Your task to perform on an android device: Is it going to rain tomorrow? Image 0: 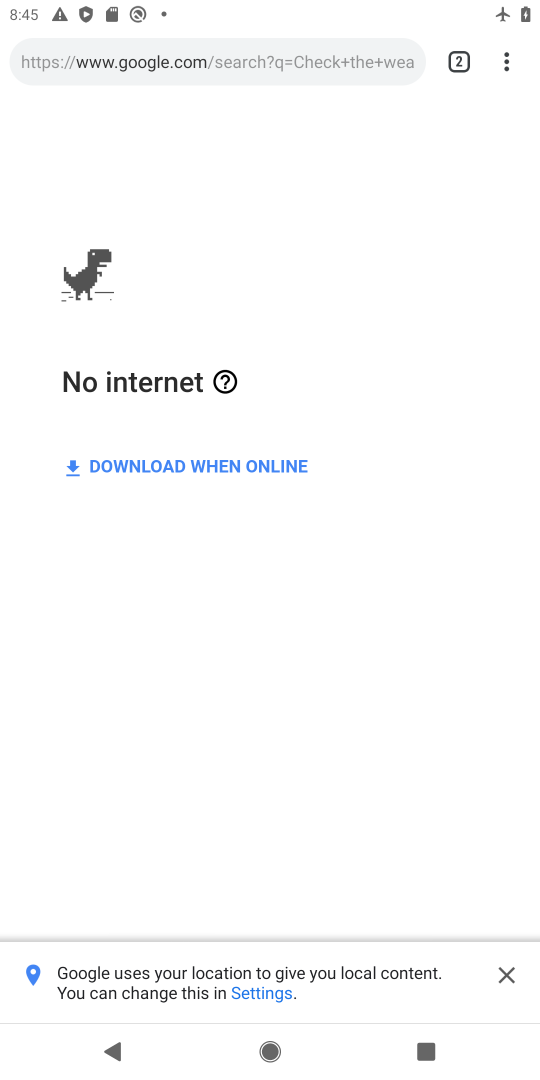
Step 0: press home button
Your task to perform on an android device: Is it going to rain tomorrow? Image 1: 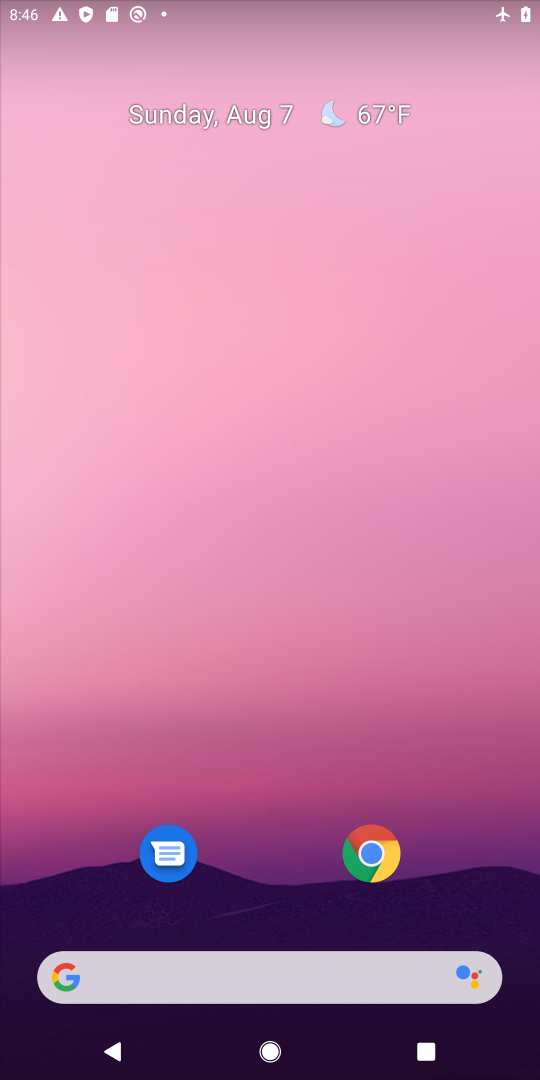
Step 1: drag from (248, 871) to (309, 305)
Your task to perform on an android device: Is it going to rain tomorrow? Image 2: 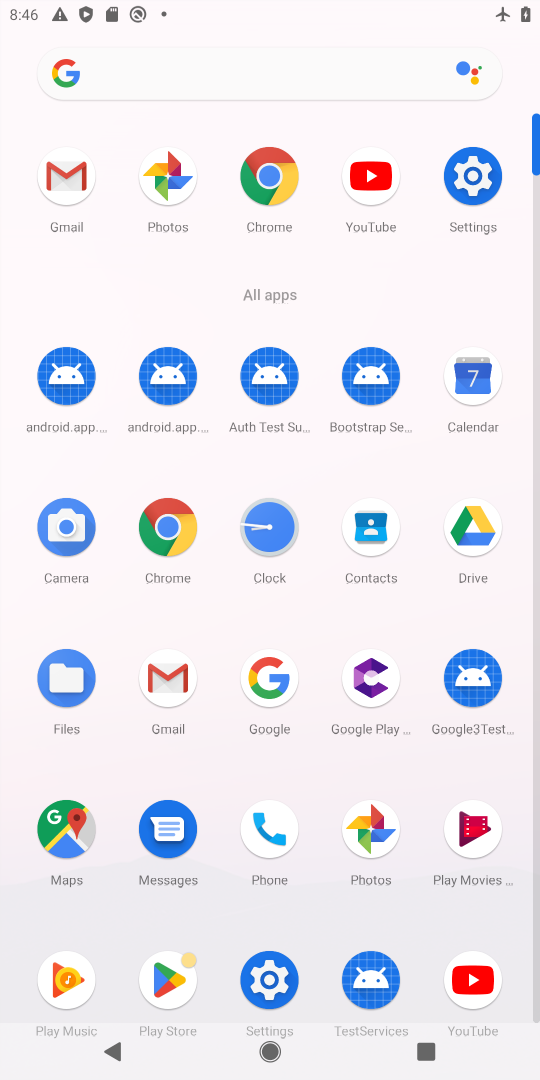
Step 2: click (159, 680)
Your task to perform on an android device: Is it going to rain tomorrow? Image 3: 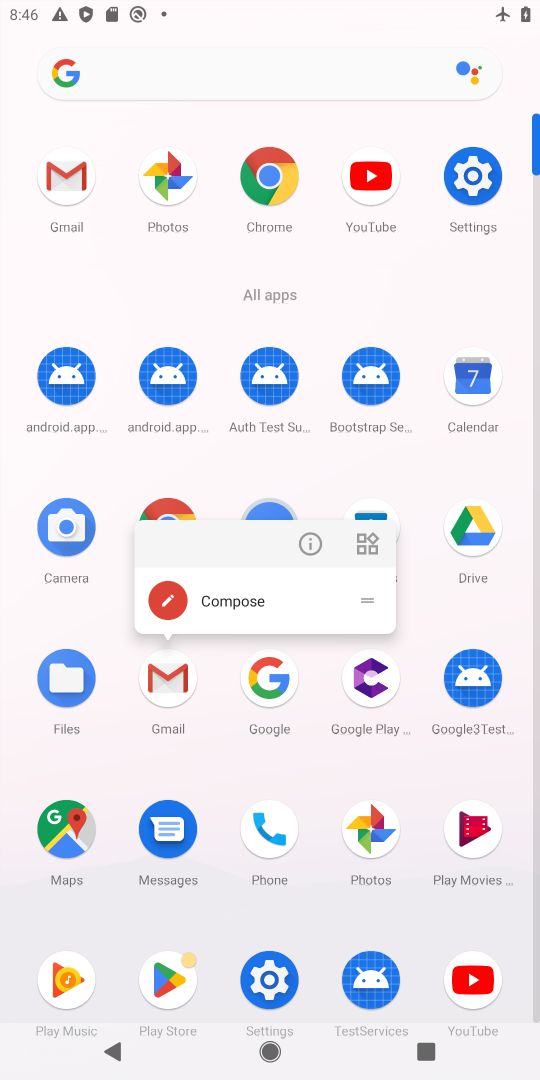
Step 3: click (159, 680)
Your task to perform on an android device: Is it going to rain tomorrow? Image 4: 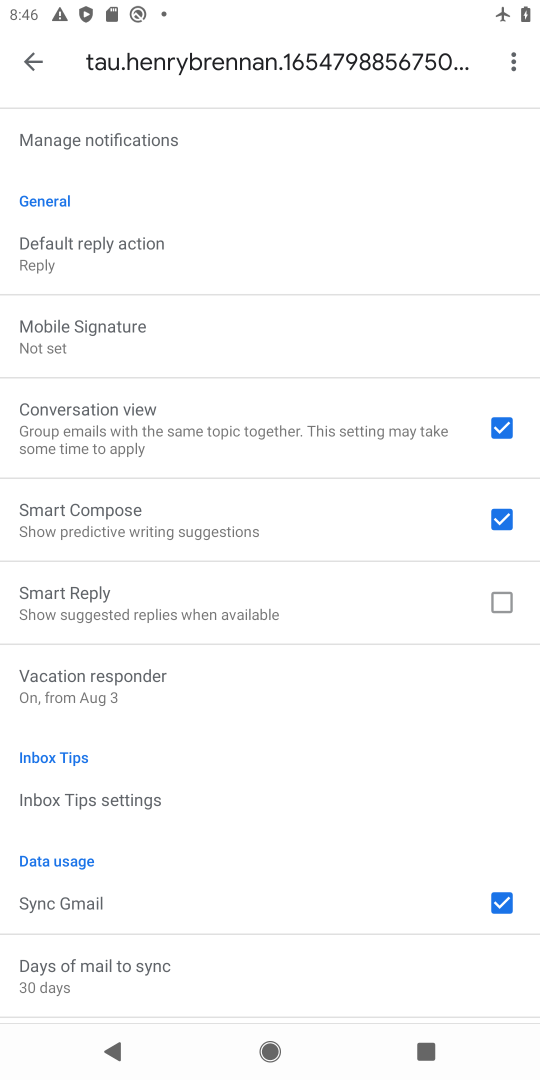
Step 4: click (24, 58)
Your task to perform on an android device: Is it going to rain tomorrow? Image 5: 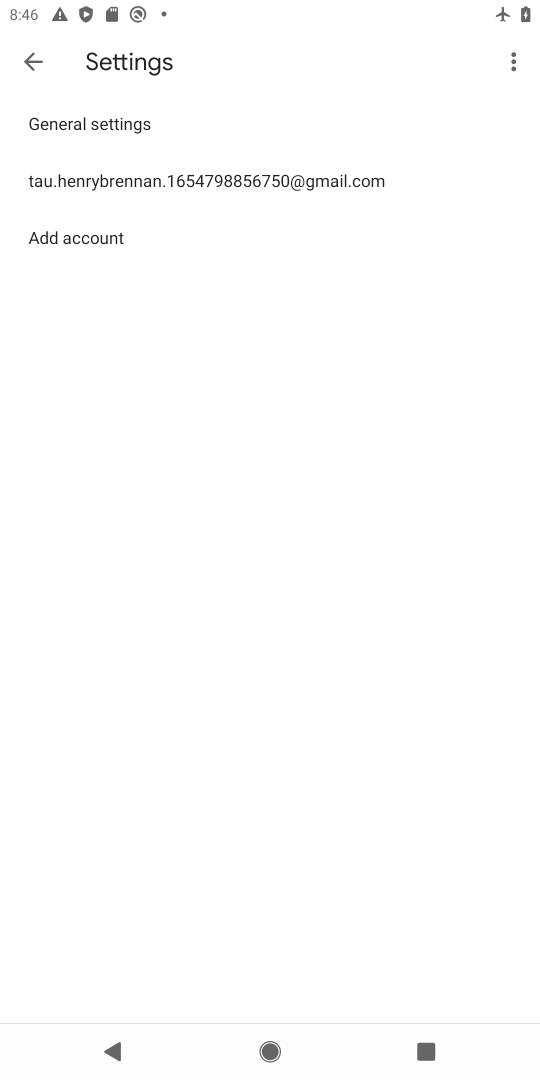
Step 5: click (35, 56)
Your task to perform on an android device: Is it going to rain tomorrow? Image 6: 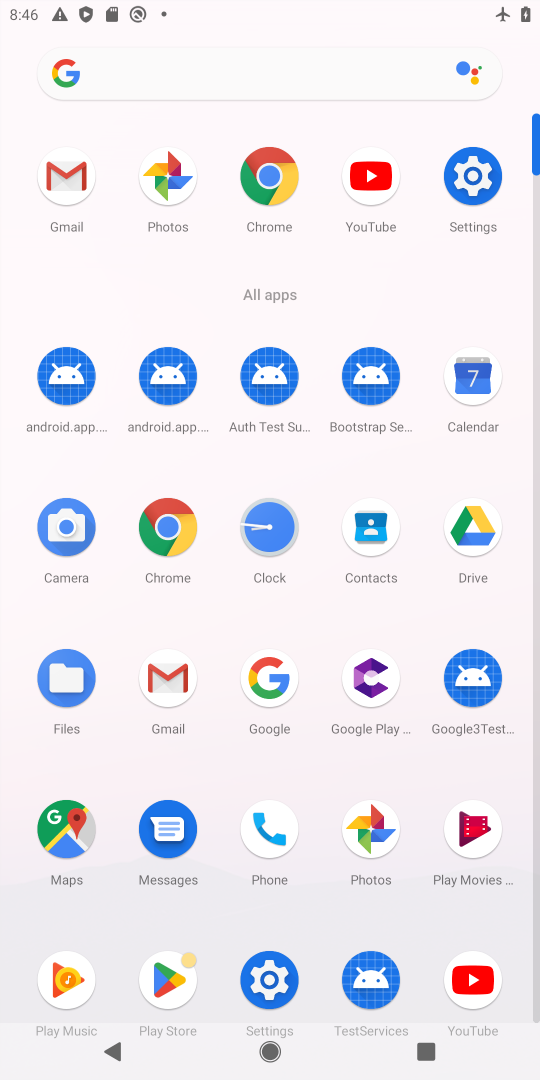
Step 6: click (176, 552)
Your task to perform on an android device: Is it going to rain tomorrow? Image 7: 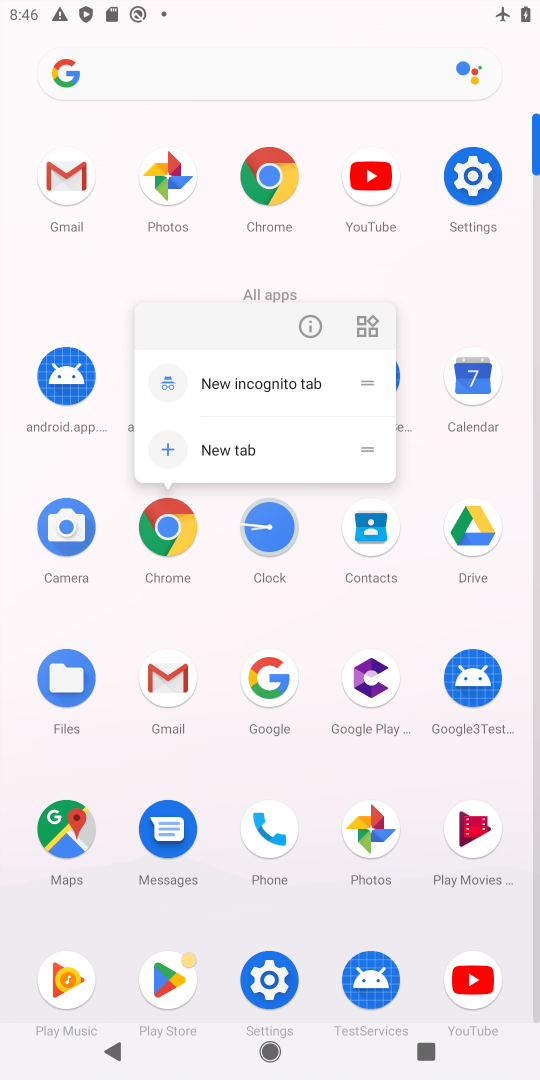
Step 7: click (188, 527)
Your task to perform on an android device: Is it going to rain tomorrow? Image 8: 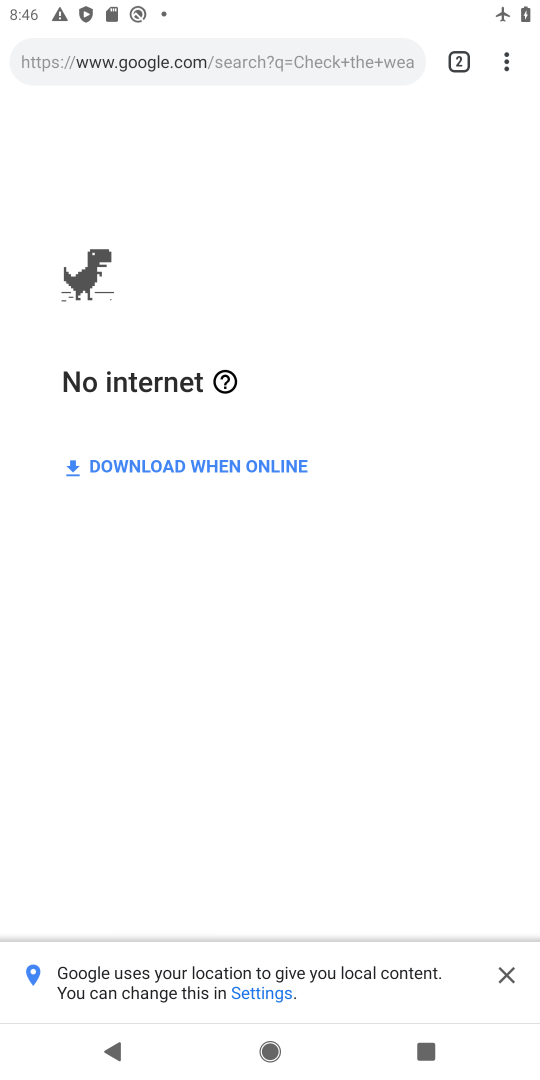
Step 8: click (526, 61)
Your task to perform on an android device: Is it going to rain tomorrow? Image 9: 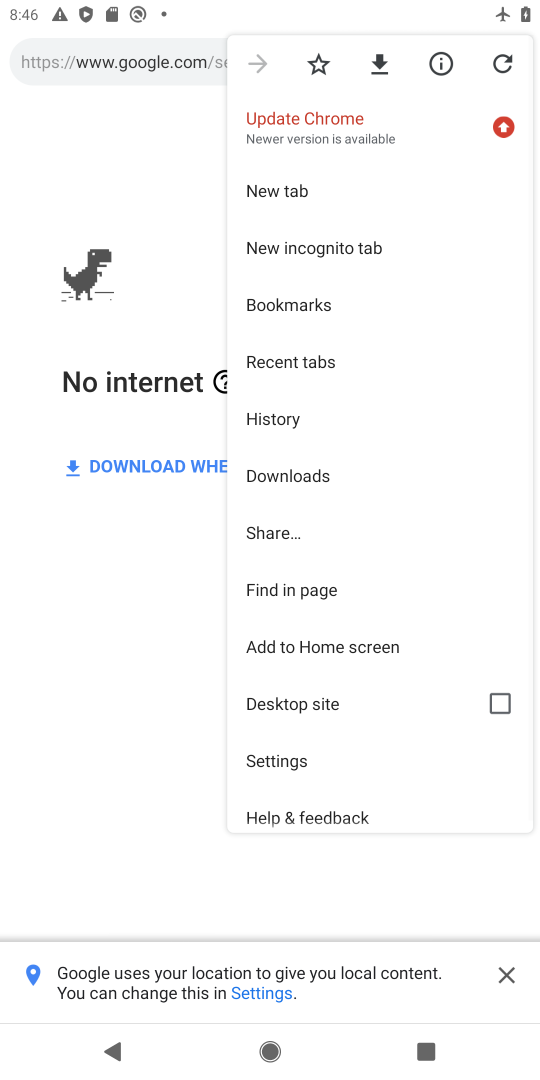
Step 9: click (348, 190)
Your task to perform on an android device: Is it going to rain tomorrow? Image 10: 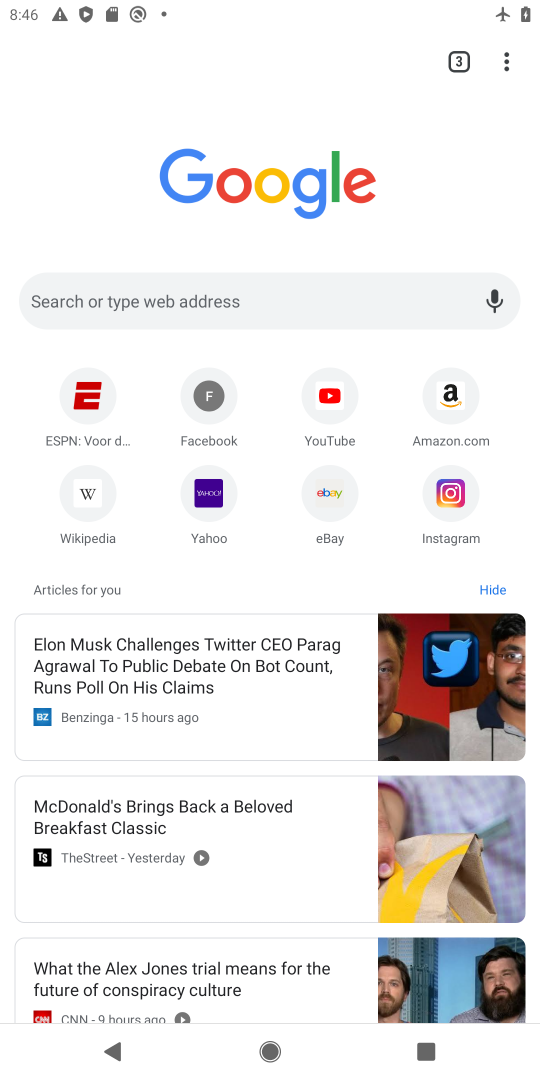
Step 10: click (319, 300)
Your task to perform on an android device: Is it going to rain tomorrow? Image 11: 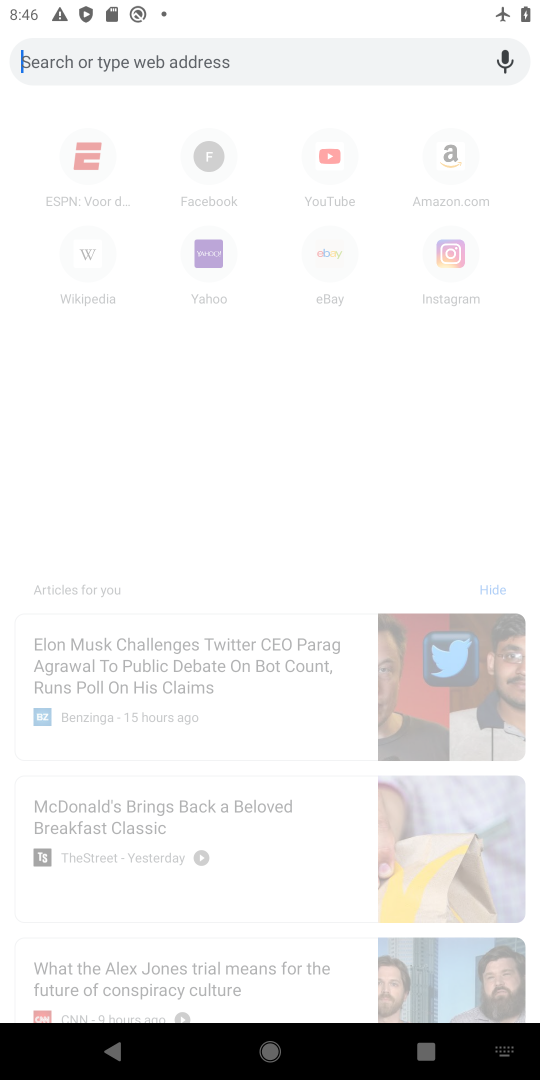
Step 11: type "Is it going to rain tomorrow "
Your task to perform on an android device: Is it going to rain tomorrow? Image 12: 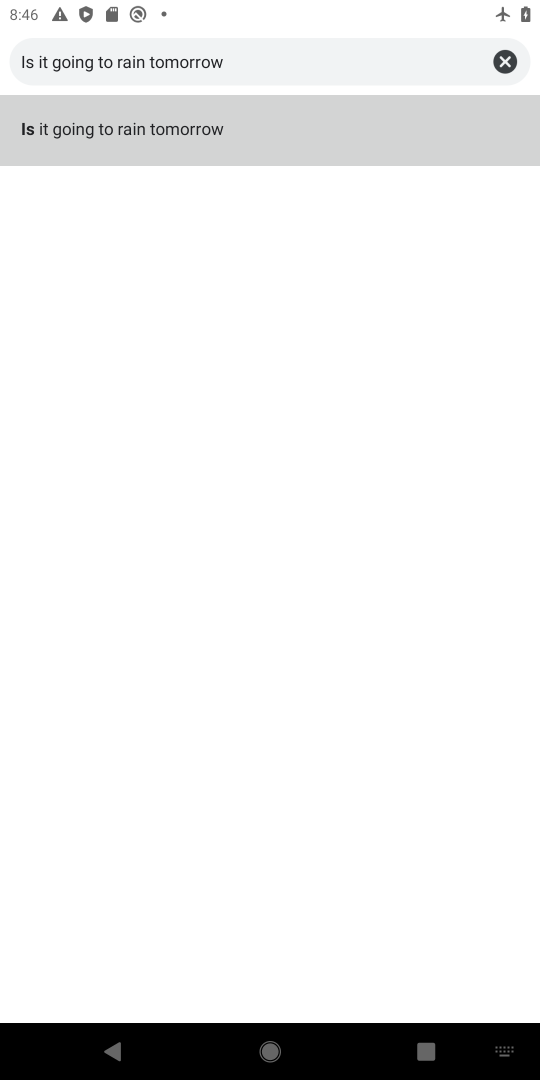
Step 12: click (170, 127)
Your task to perform on an android device: Is it going to rain tomorrow? Image 13: 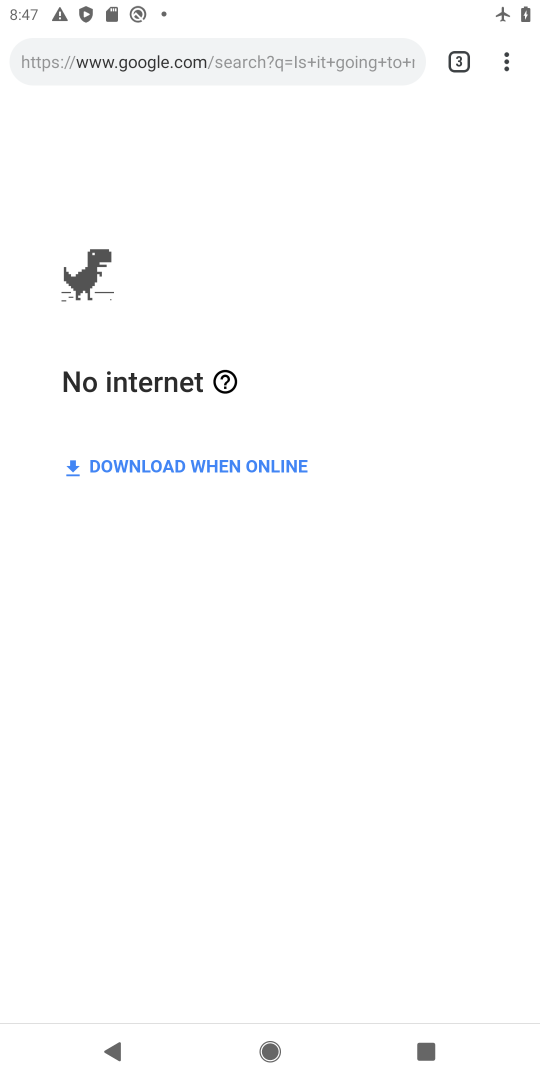
Step 13: task complete